Your task to perform on an android device: Go to eBay Image 0: 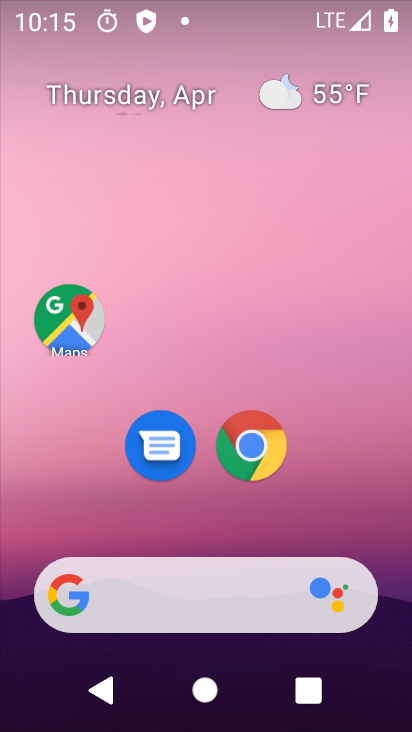
Step 0: click (245, 448)
Your task to perform on an android device: Go to eBay Image 1: 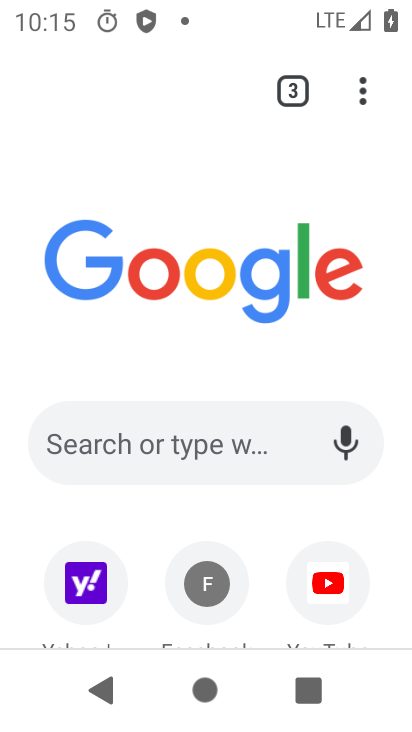
Step 1: drag from (250, 525) to (240, 297)
Your task to perform on an android device: Go to eBay Image 2: 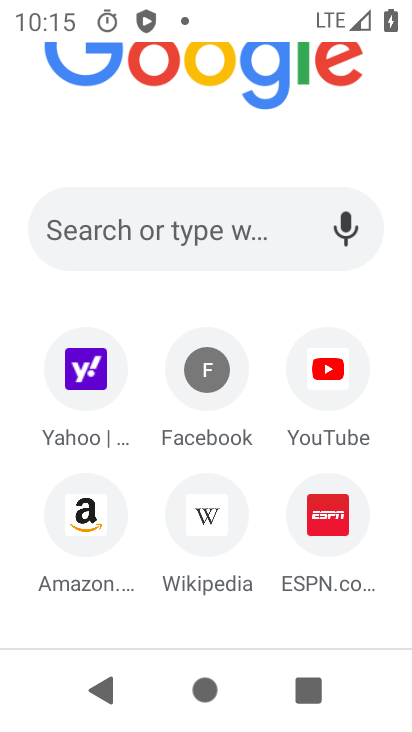
Step 2: click (86, 233)
Your task to perform on an android device: Go to eBay Image 3: 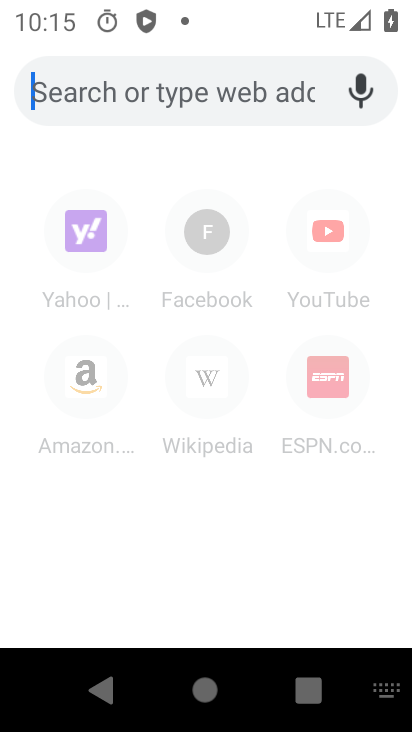
Step 3: type "ebay"
Your task to perform on an android device: Go to eBay Image 4: 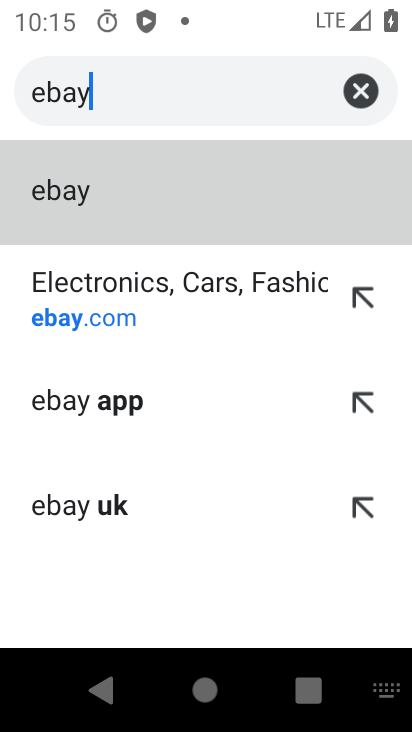
Step 4: click (92, 208)
Your task to perform on an android device: Go to eBay Image 5: 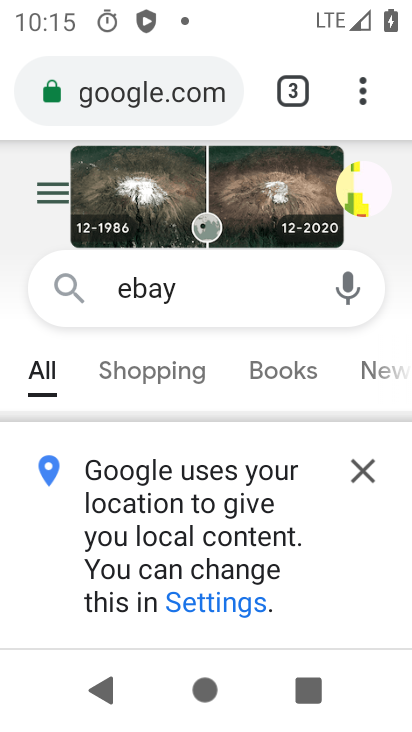
Step 5: drag from (233, 395) to (218, 217)
Your task to perform on an android device: Go to eBay Image 6: 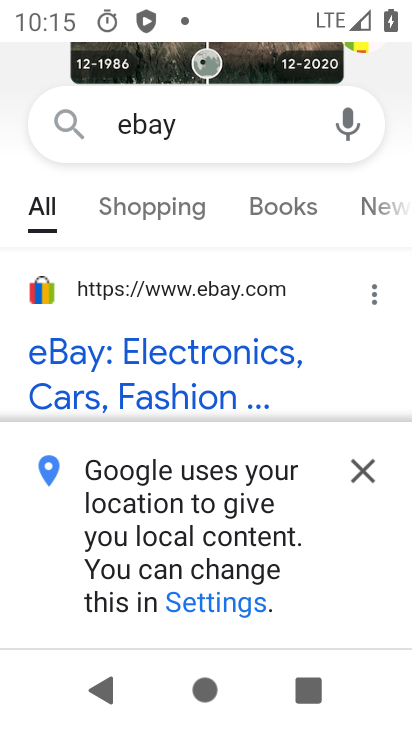
Step 6: click (368, 460)
Your task to perform on an android device: Go to eBay Image 7: 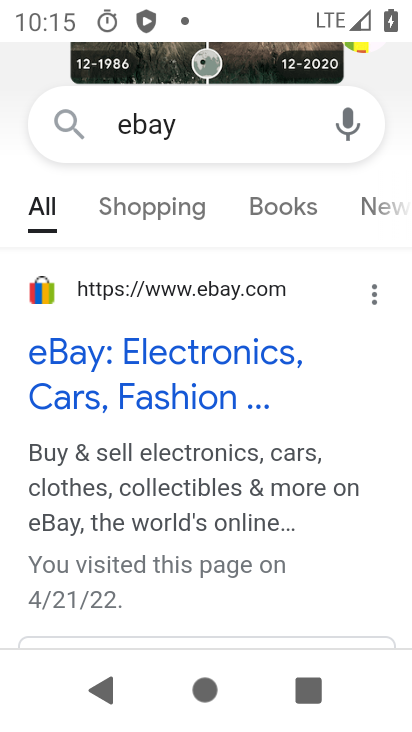
Step 7: click (71, 313)
Your task to perform on an android device: Go to eBay Image 8: 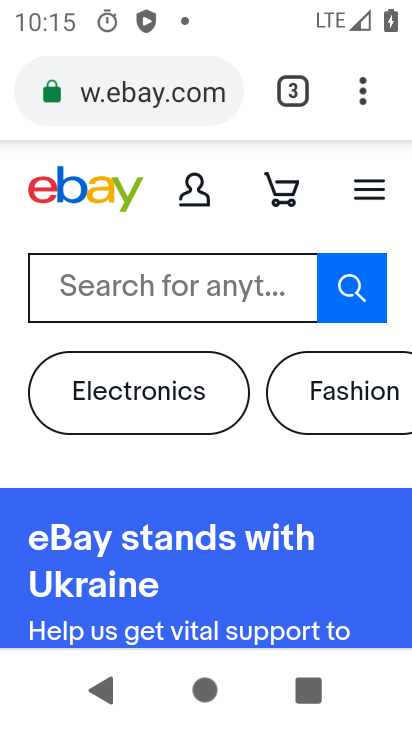
Step 8: task complete